Your task to perform on an android device: Open display settings Image 0: 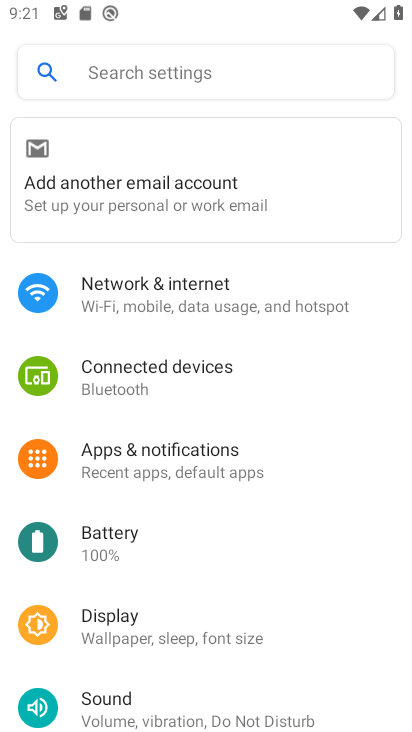
Step 0: click (129, 631)
Your task to perform on an android device: Open display settings Image 1: 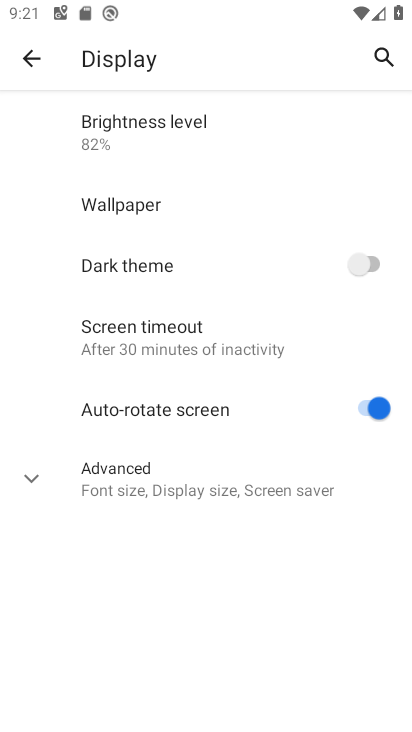
Step 1: task complete